Your task to perform on an android device: Open Google Chrome and click the shortcut for Amazon.com Image 0: 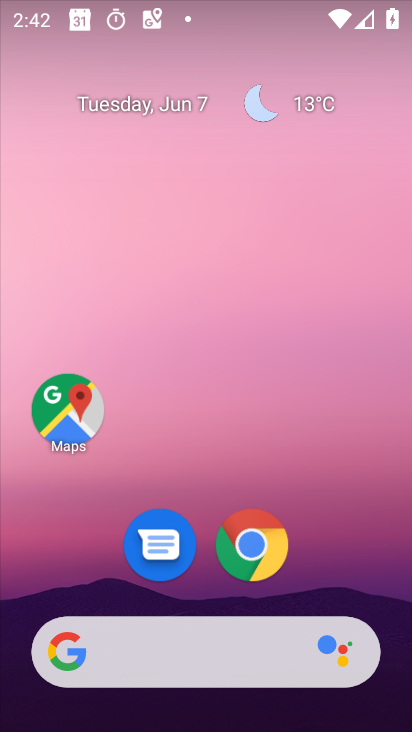
Step 0: click (248, 570)
Your task to perform on an android device: Open Google Chrome and click the shortcut for Amazon.com Image 1: 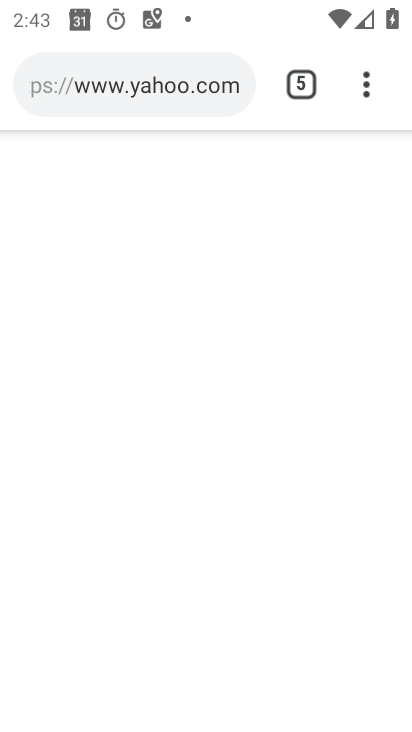
Step 1: click (288, 86)
Your task to perform on an android device: Open Google Chrome and click the shortcut for Amazon.com Image 2: 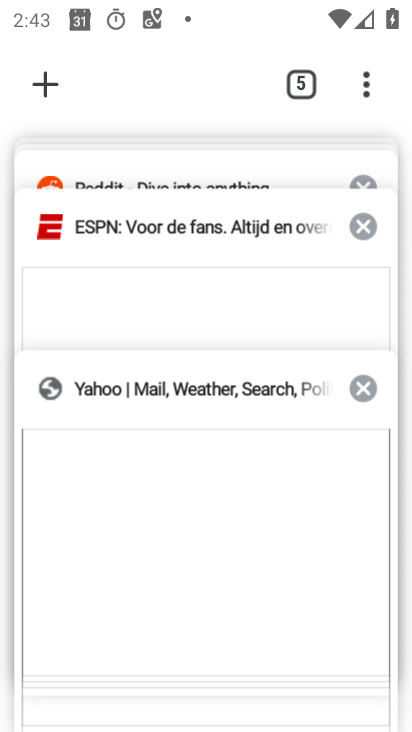
Step 2: drag from (226, 129) to (262, 548)
Your task to perform on an android device: Open Google Chrome and click the shortcut for Amazon.com Image 3: 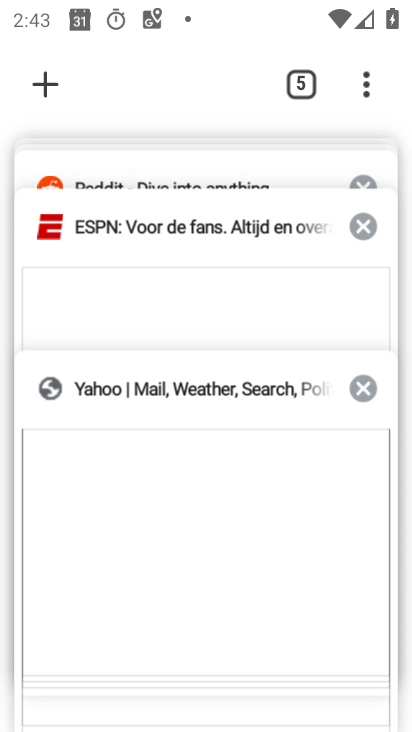
Step 3: drag from (211, 210) to (197, 601)
Your task to perform on an android device: Open Google Chrome and click the shortcut for Amazon.com Image 4: 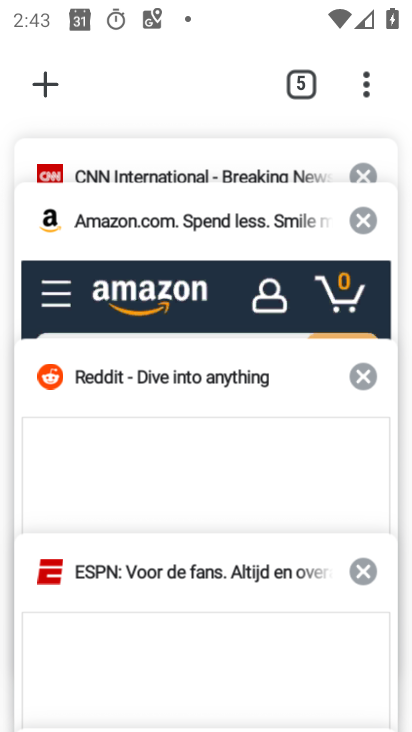
Step 4: click (162, 251)
Your task to perform on an android device: Open Google Chrome and click the shortcut for Amazon.com Image 5: 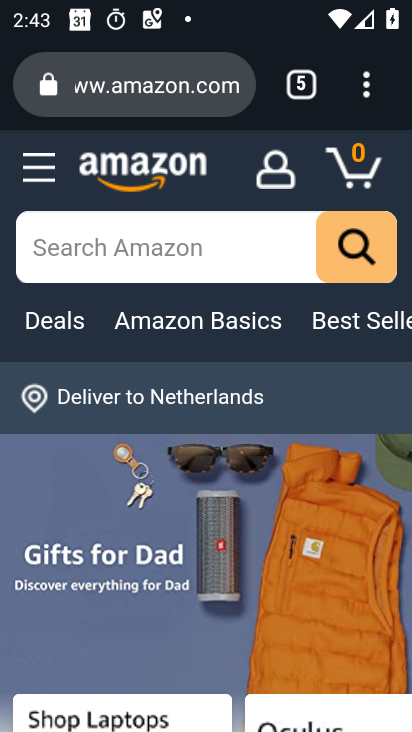
Step 5: task complete